Your task to perform on an android device: refresh tabs in the chrome app Image 0: 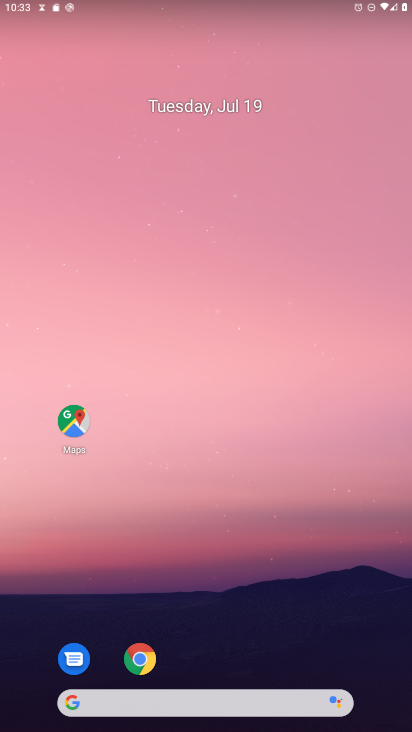
Step 0: drag from (212, 668) to (234, 293)
Your task to perform on an android device: refresh tabs in the chrome app Image 1: 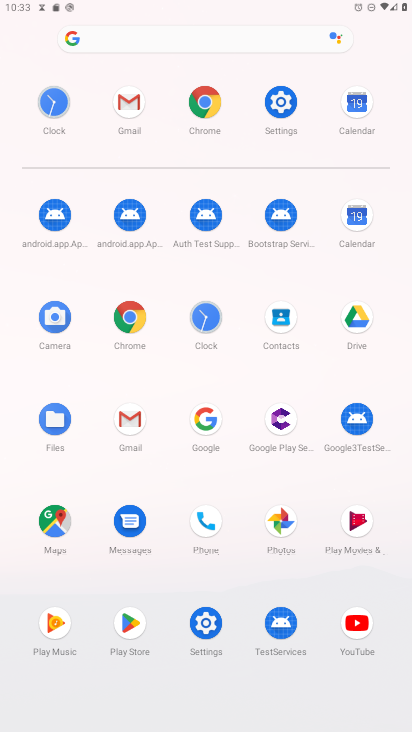
Step 1: click (204, 95)
Your task to perform on an android device: refresh tabs in the chrome app Image 2: 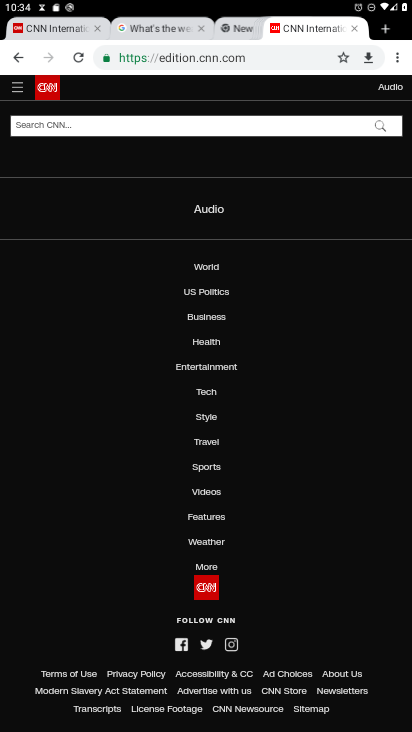
Step 2: click (401, 57)
Your task to perform on an android device: refresh tabs in the chrome app Image 3: 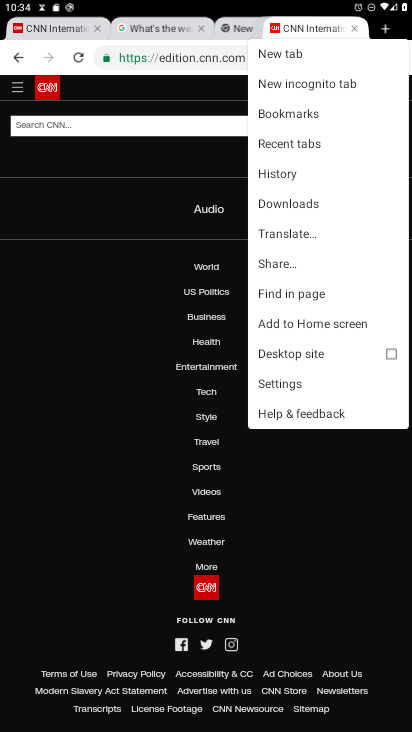
Step 3: click (75, 53)
Your task to perform on an android device: refresh tabs in the chrome app Image 4: 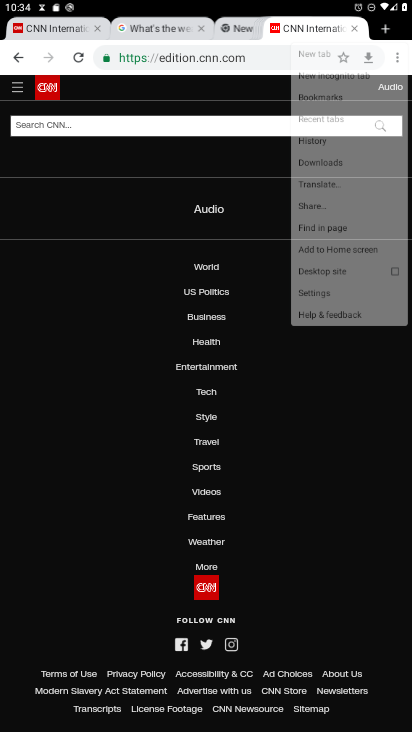
Step 4: click (75, 53)
Your task to perform on an android device: refresh tabs in the chrome app Image 5: 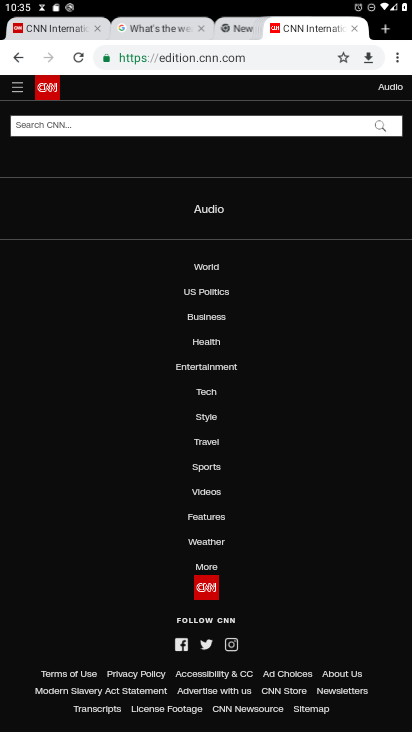
Step 5: task complete